Your task to perform on an android device: Open the web browser Image 0: 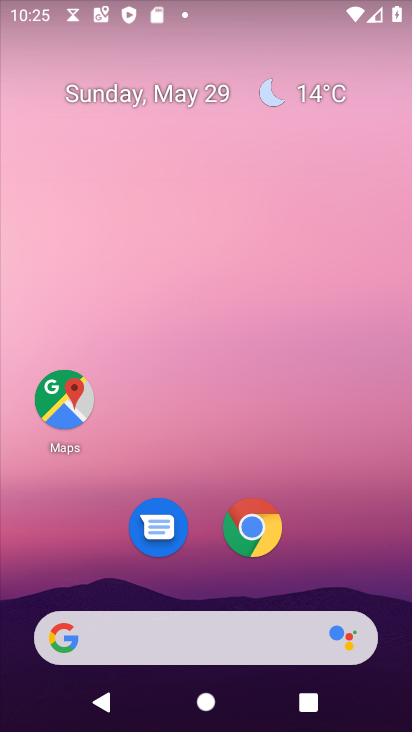
Step 0: press home button
Your task to perform on an android device: Open the web browser Image 1: 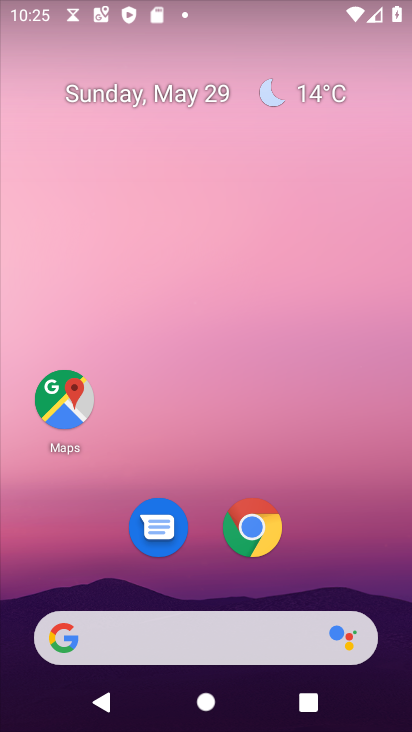
Step 1: click (256, 541)
Your task to perform on an android device: Open the web browser Image 2: 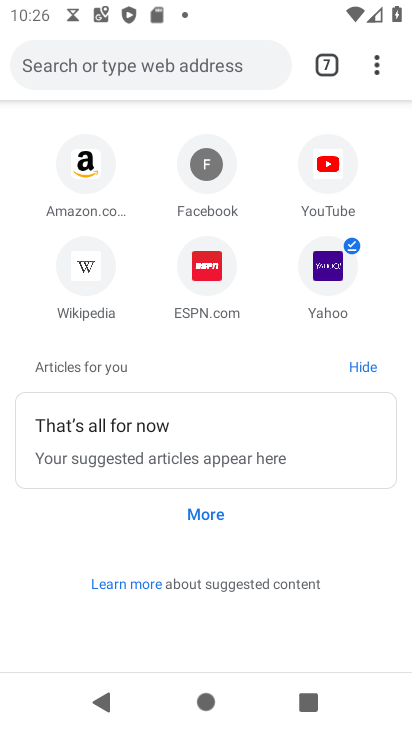
Step 2: task complete